Your task to perform on an android device: turn off notifications settings in the gmail app Image 0: 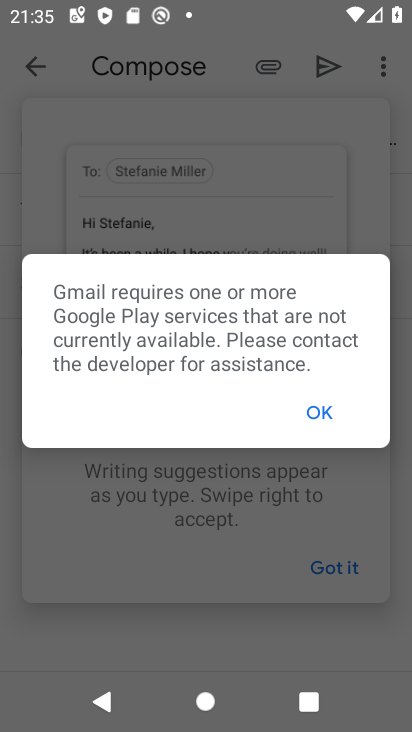
Step 0: click (316, 405)
Your task to perform on an android device: turn off notifications settings in the gmail app Image 1: 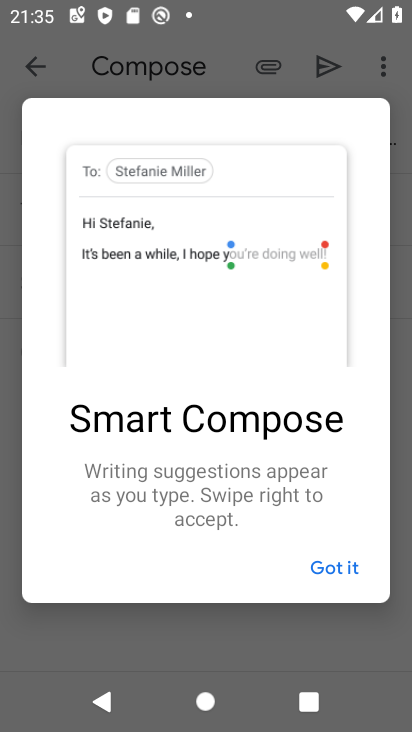
Step 1: press home button
Your task to perform on an android device: turn off notifications settings in the gmail app Image 2: 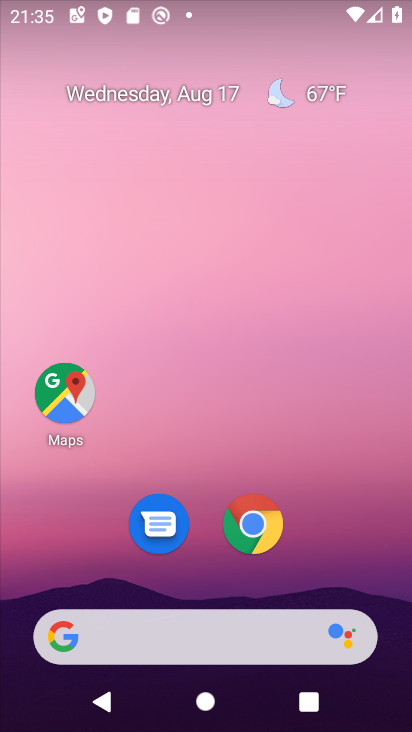
Step 2: drag from (335, 535) to (385, 33)
Your task to perform on an android device: turn off notifications settings in the gmail app Image 3: 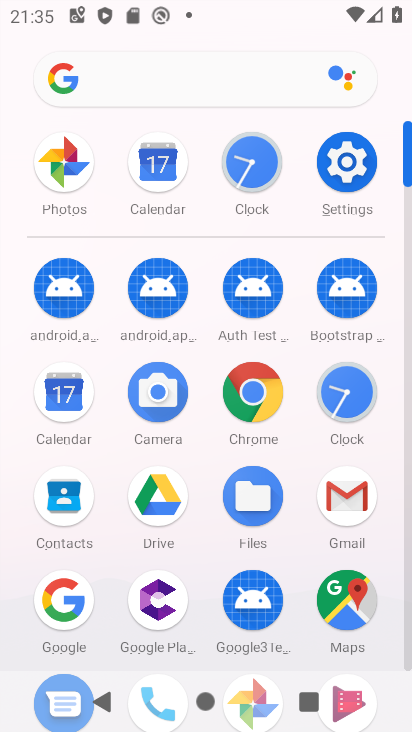
Step 3: click (342, 488)
Your task to perform on an android device: turn off notifications settings in the gmail app Image 4: 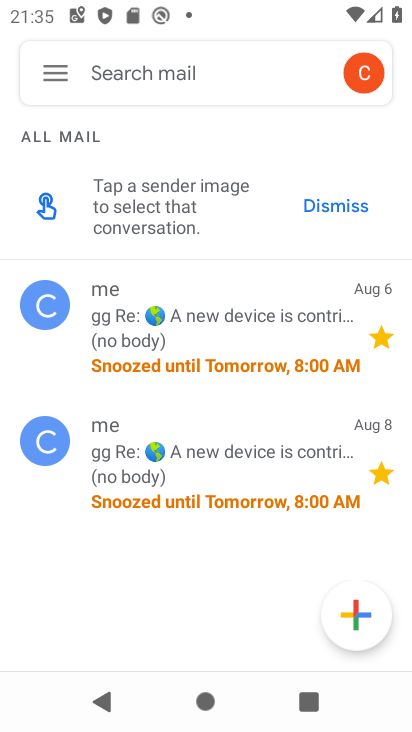
Step 4: click (64, 75)
Your task to perform on an android device: turn off notifications settings in the gmail app Image 5: 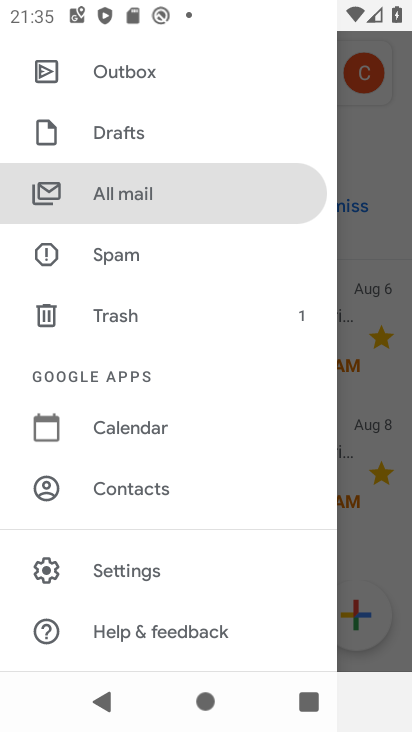
Step 5: click (148, 566)
Your task to perform on an android device: turn off notifications settings in the gmail app Image 6: 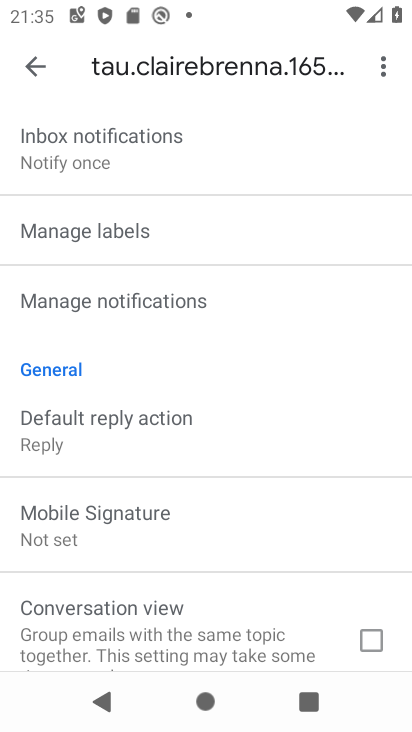
Step 6: click (177, 298)
Your task to perform on an android device: turn off notifications settings in the gmail app Image 7: 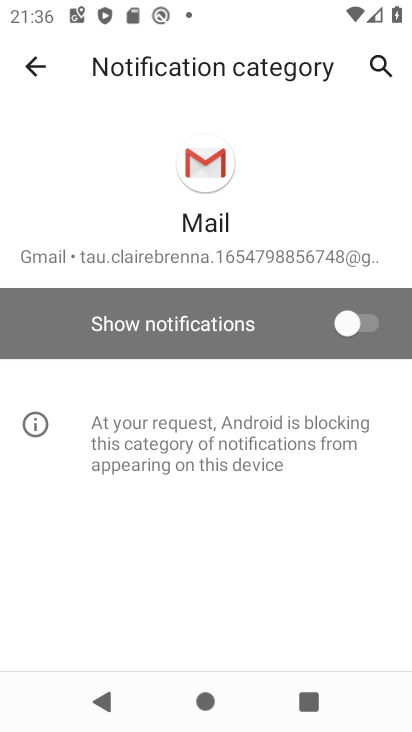
Step 7: task complete